Your task to perform on an android device: see sites visited before in the chrome app Image 0: 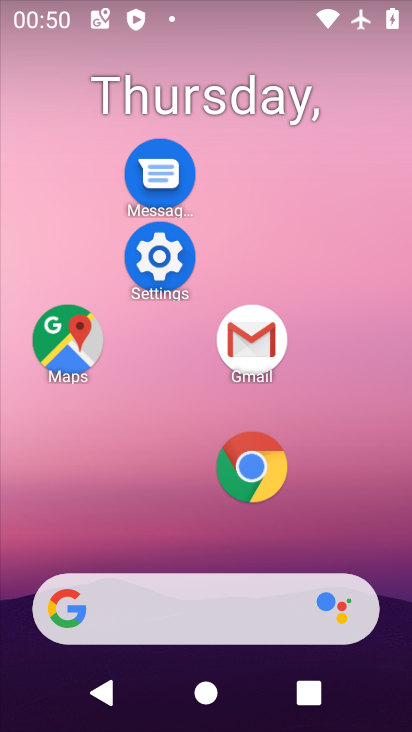
Step 0: drag from (181, 547) to (240, 146)
Your task to perform on an android device: see sites visited before in the chrome app Image 1: 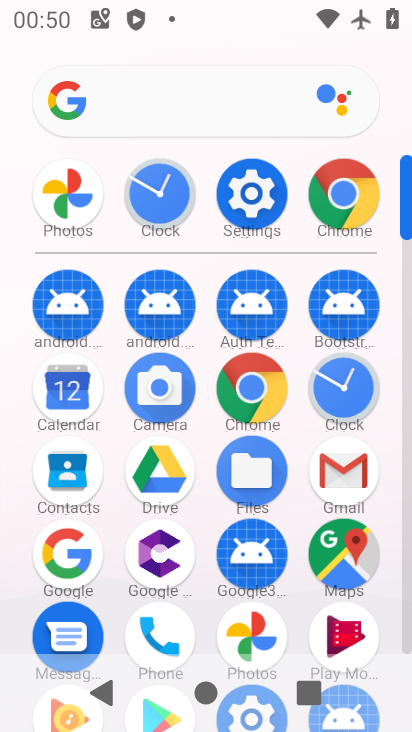
Step 1: click (243, 384)
Your task to perform on an android device: see sites visited before in the chrome app Image 2: 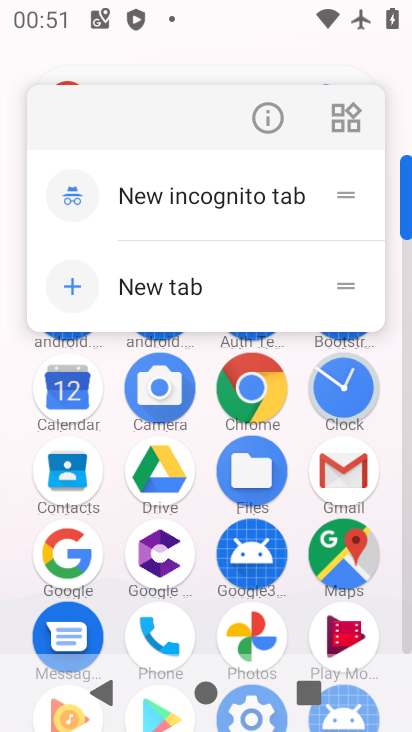
Step 2: click (260, 109)
Your task to perform on an android device: see sites visited before in the chrome app Image 3: 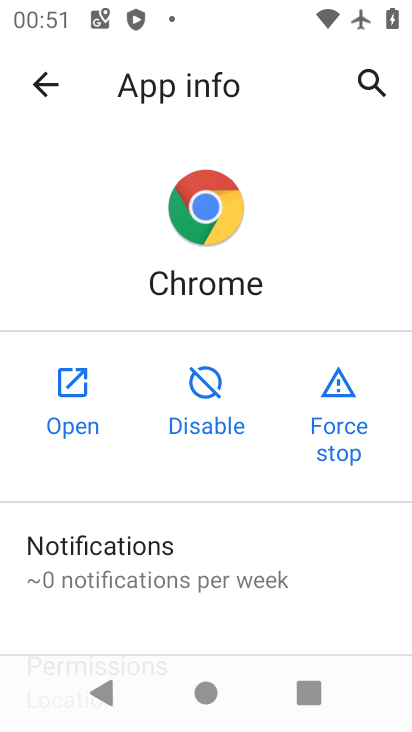
Step 3: click (79, 385)
Your task to perform on an android device: see sites visited before in the chrome app Image 4: 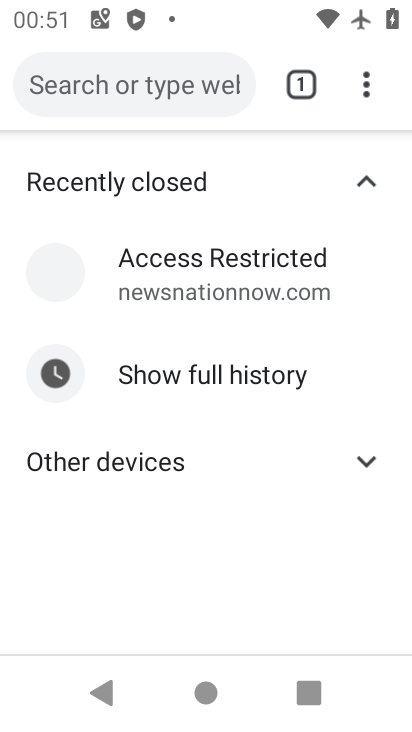
Step 4: drag from (223, 556) to (243, 253)
Your task to perform on an android device: see sites visited before in the chrome app Image 5: 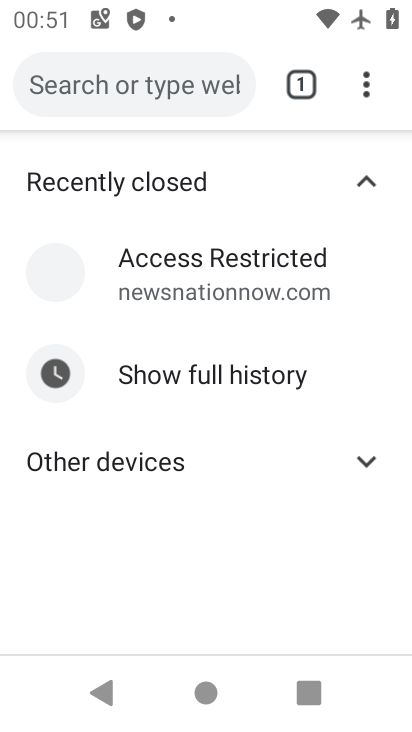
Step 5: click (362, 88)
Your task to perform on an android device: see sites visited before in the chrome app Image 6: 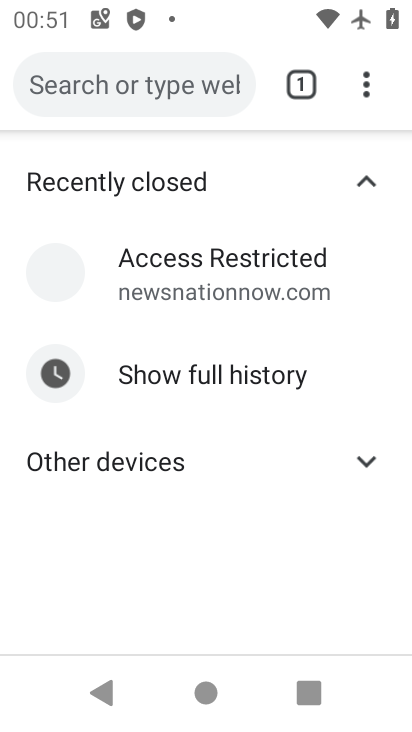
Step 6: click (367, 96)
Your task to perform on an android device: see sites visited before in the chrome app Image 7: 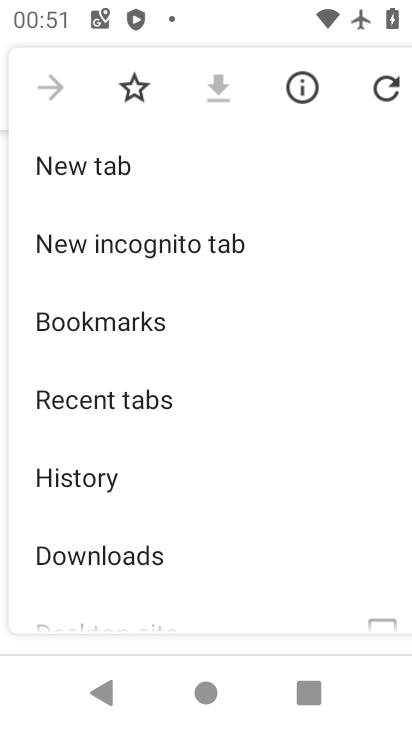
Step 7: click (115, 475)
Your task to perform on an android device: see sites visited before in the chrome app Image 8: 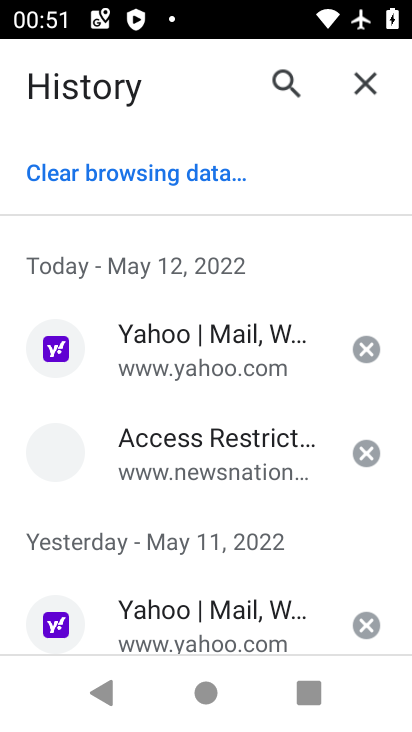
Step 8: task complete